Your task to perform on an android device: Go to accessibility settings Image 0: 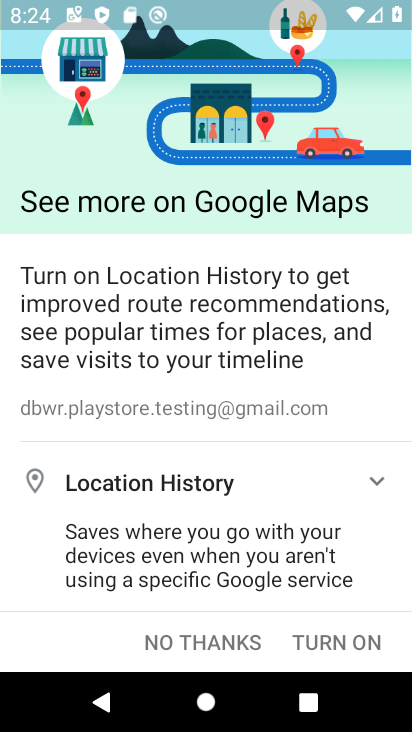
Step 0: press home button
Your task to perform on an android device: Go to accessibility settings Image 1: 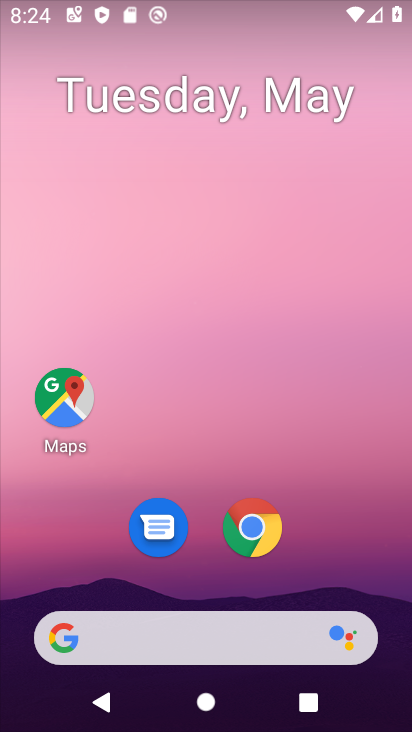
Step 1: drag from (99, 598) to (190, 339)
Your task to perform on an android device: Go to accessibility settings Image 2: 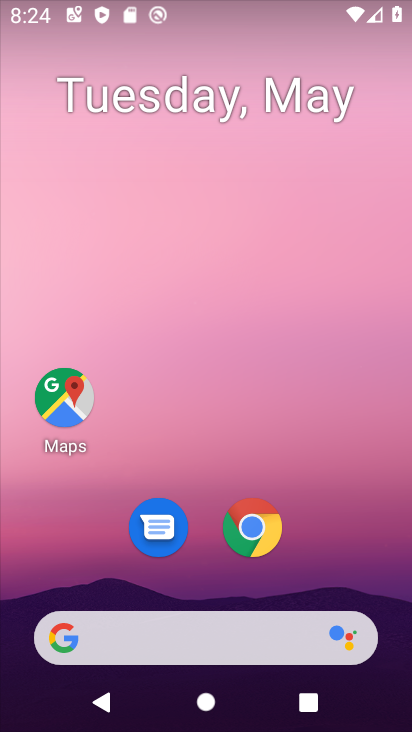
Step 2: drag from (63, 592) to (184, 317)
Your task to perform on an android device: Go to accessibility settings Image 3: 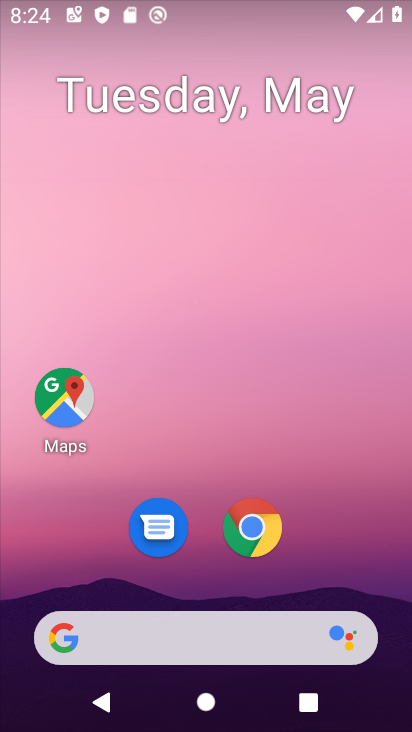
Step 3: drag from (72, 599) to (298, 92)
Your task to perform on an android device: Go to accessibility settings Image 4: 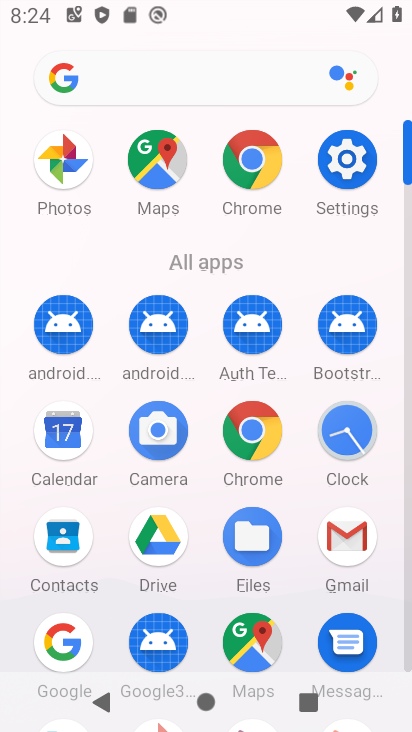
Step 4: drag from (145, 631) to (262, 242)
Your task to perform on an android device: Go to accessibility settings Image 5: 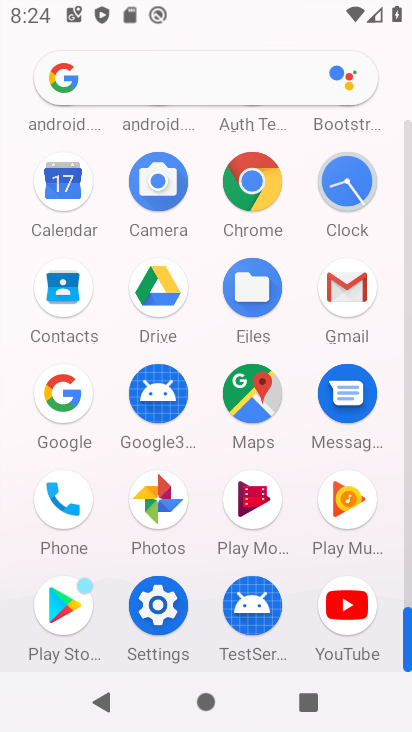
Step 5: click (163, 603)
Your task to perform on an android device: Go to accessibility settings Image 6: 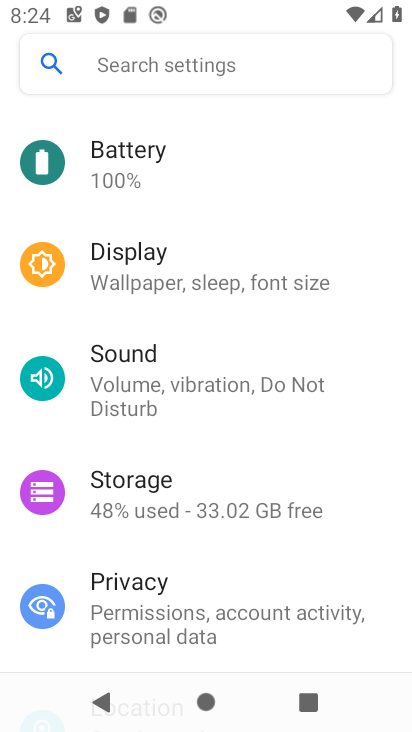
Step 6: drag from (179, 622) to (270, 89)
Your task to perform on an android device: Go to accessibility settings Image 7: 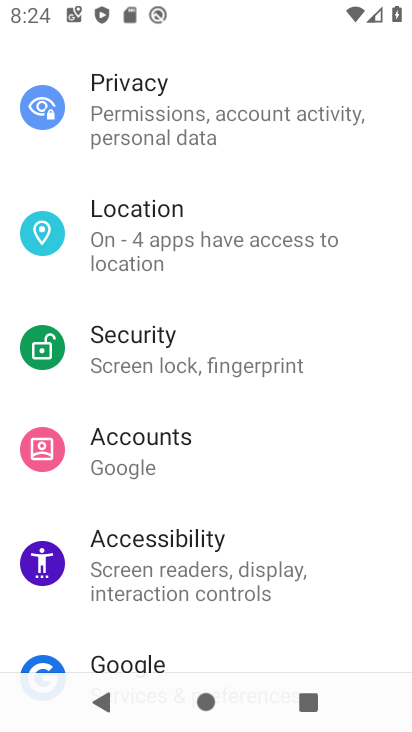
Step 7: drag from (225, 603) to (284, 190)
Your task to perform on an android device: Go to accessibility settings Image 8: 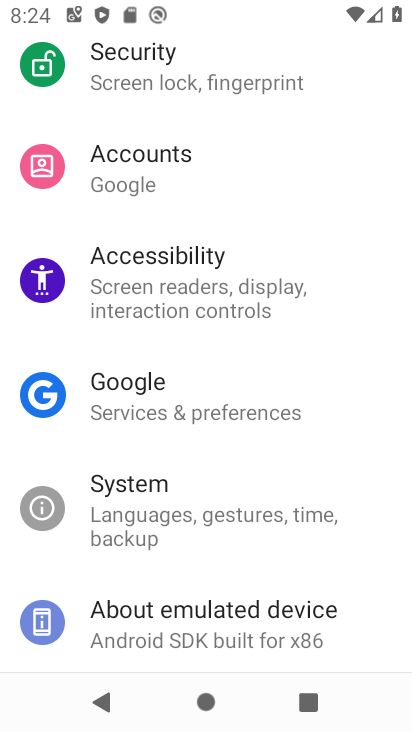
Step 8: click (197, 302)
Your task to perform on an android device: Go to accessibility settings Image 9: 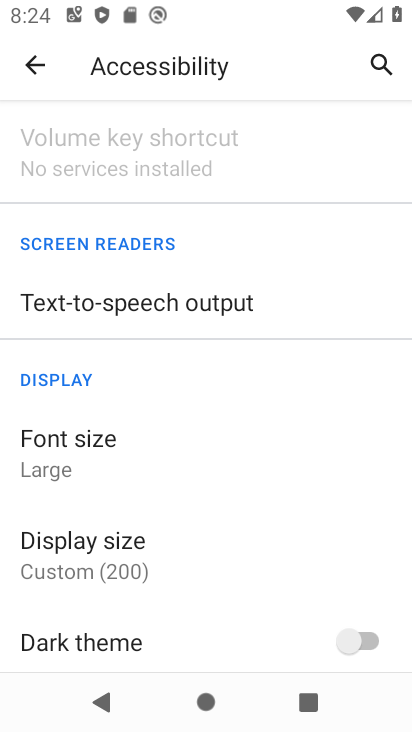
Step 9: task complete